Your task to perform on an android device: Go to wifi settings Image 0: 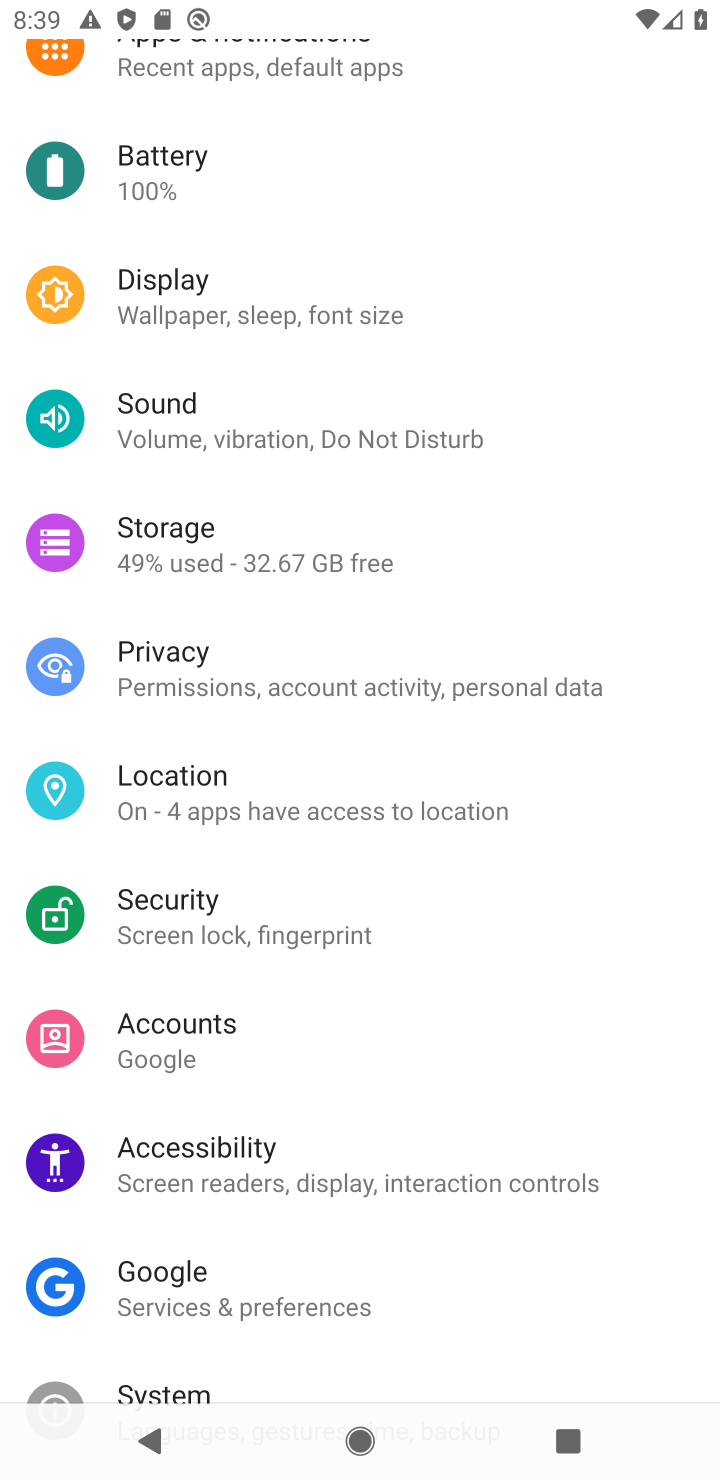
Step 0: drag from (498, 501) to (492, 1036)
Your task to perform on an android device: Go to wifi settings Image 1: 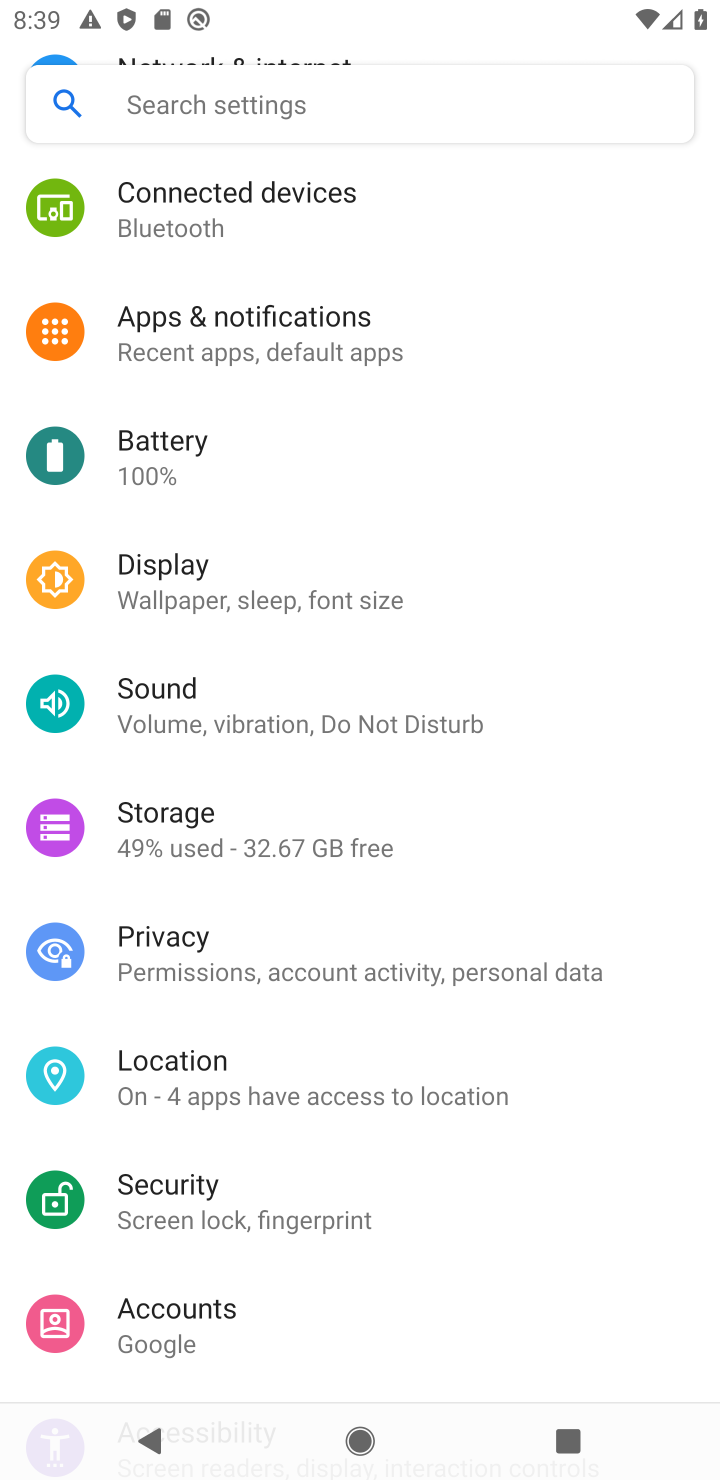
Step 1: drag from (492, 723) to (473, 1198)
Your task to perform on an android device: Go to wifi settings Image 2: 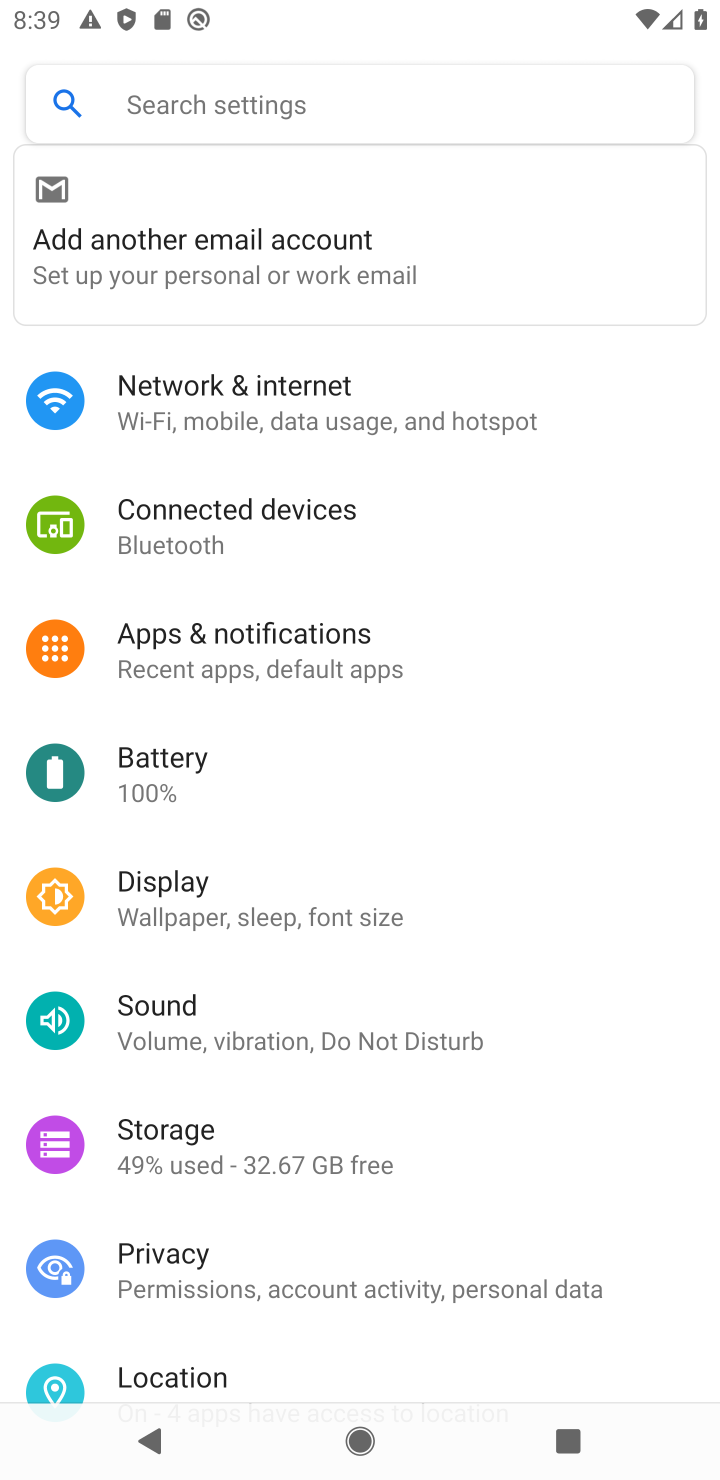
Step 2: click (250, 391)
Your task to perform on an android device: Go to wifi settings Image 3: 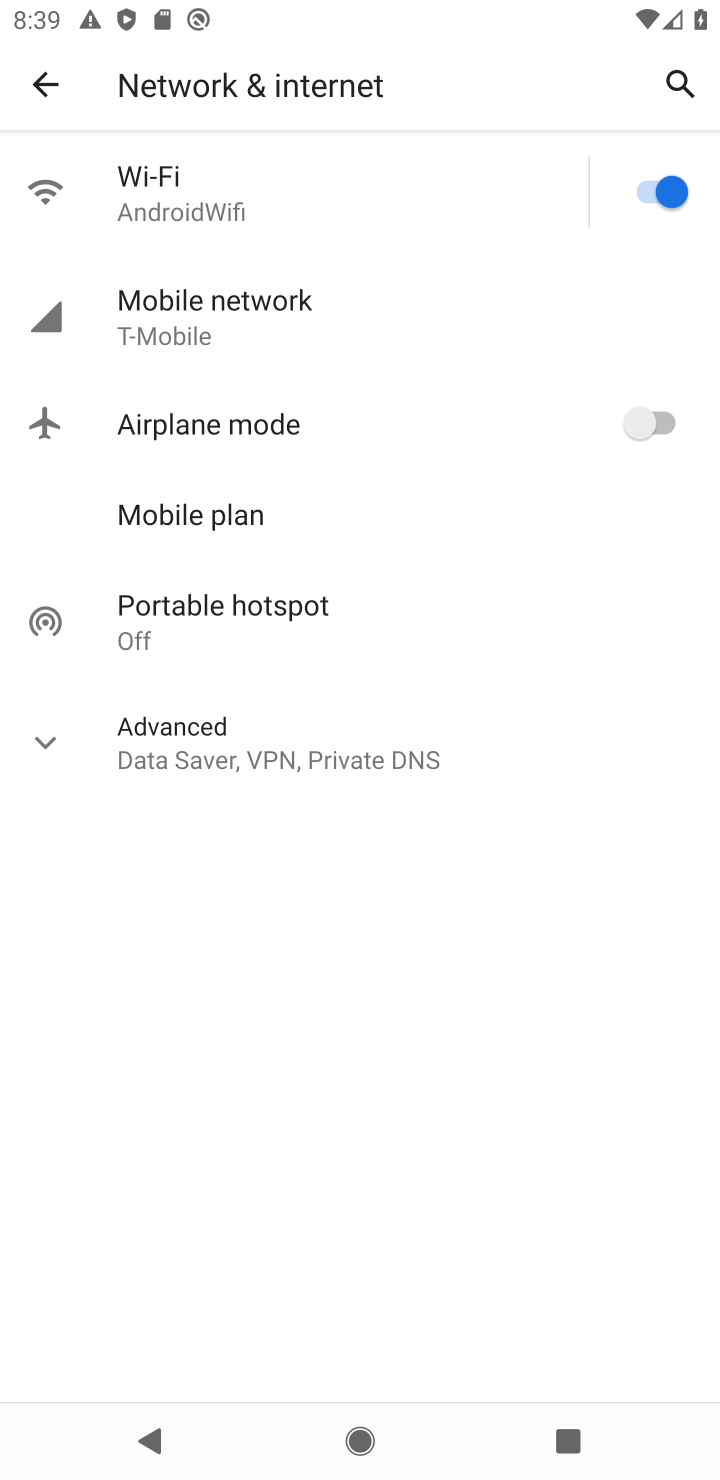
Step 3: click (162, 207)
Your task to perform on an android device: Go to wifi settings Image 4: 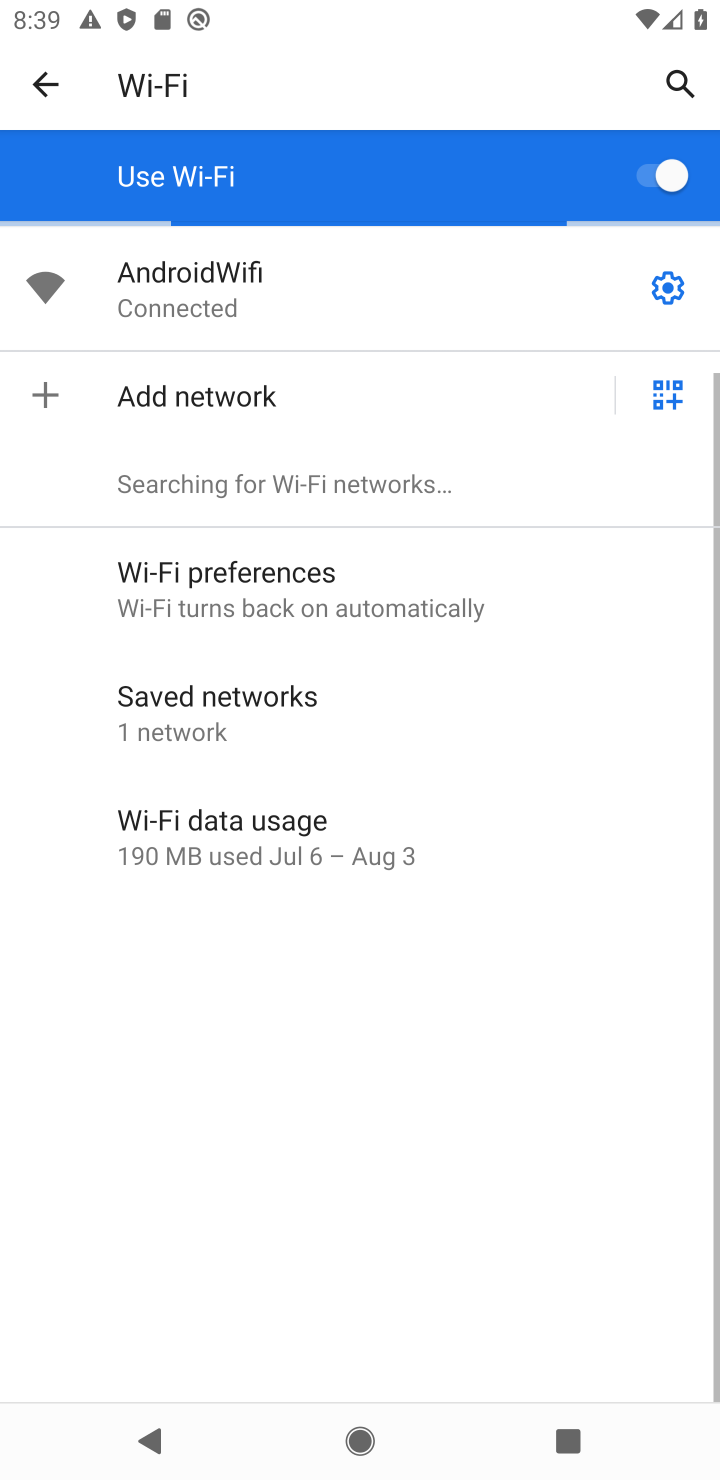
Step 4: click (661, 289)
Your task to perform on an android device: Go to wifi settings Image 5: 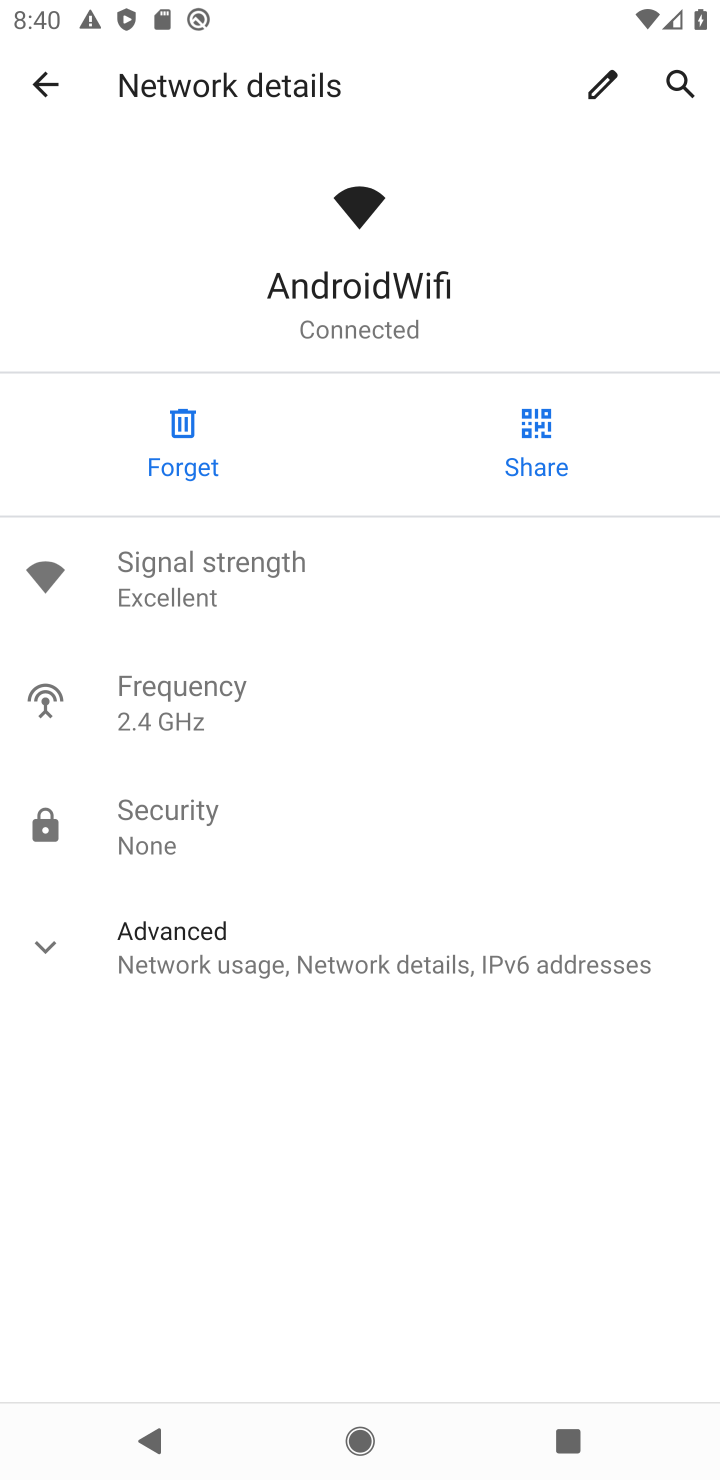
Step 5: task complete